Your task to perform on an android device: install app "Adobe Acrobat Reader" Image 0: 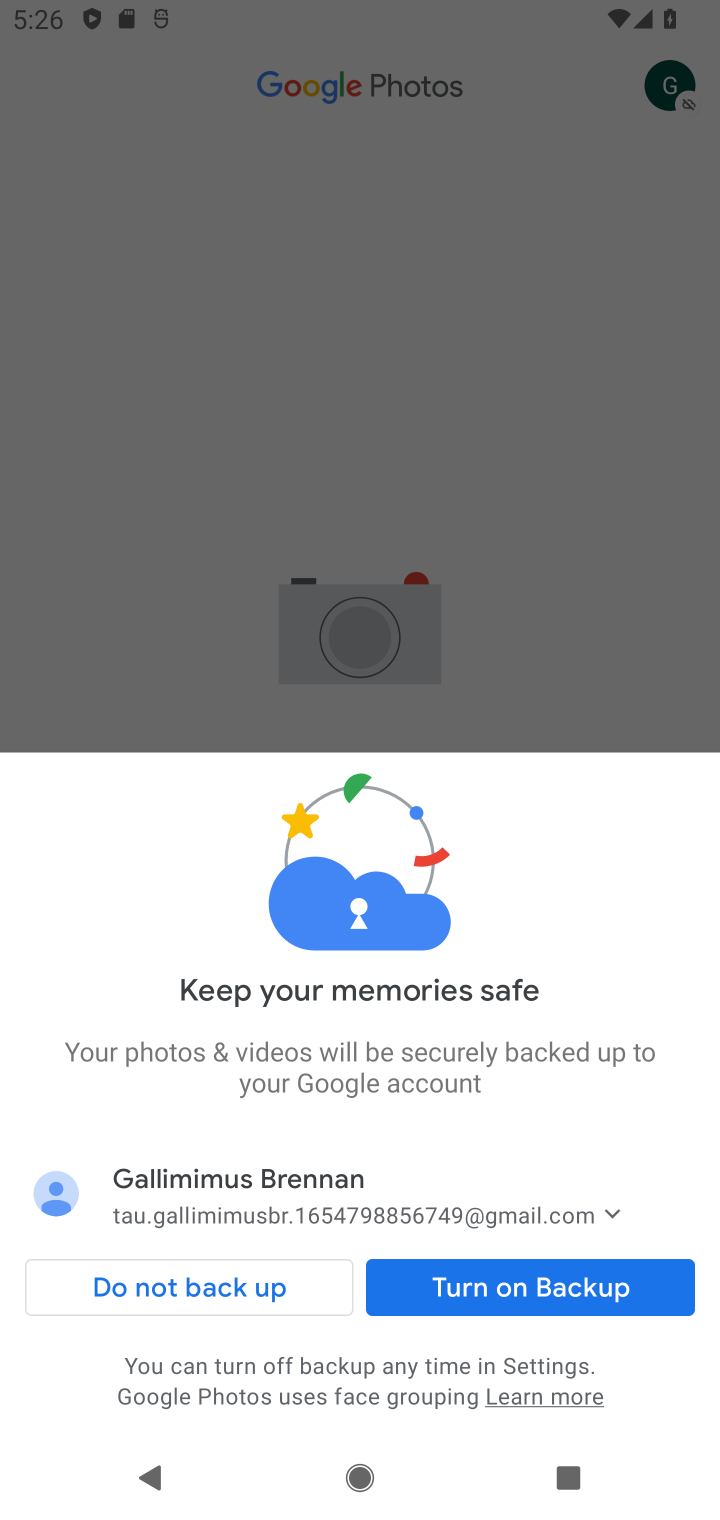
Step 0: press home button
Your task to perform on an android device: install app "Adobe Acrobat Reader" Image 1: 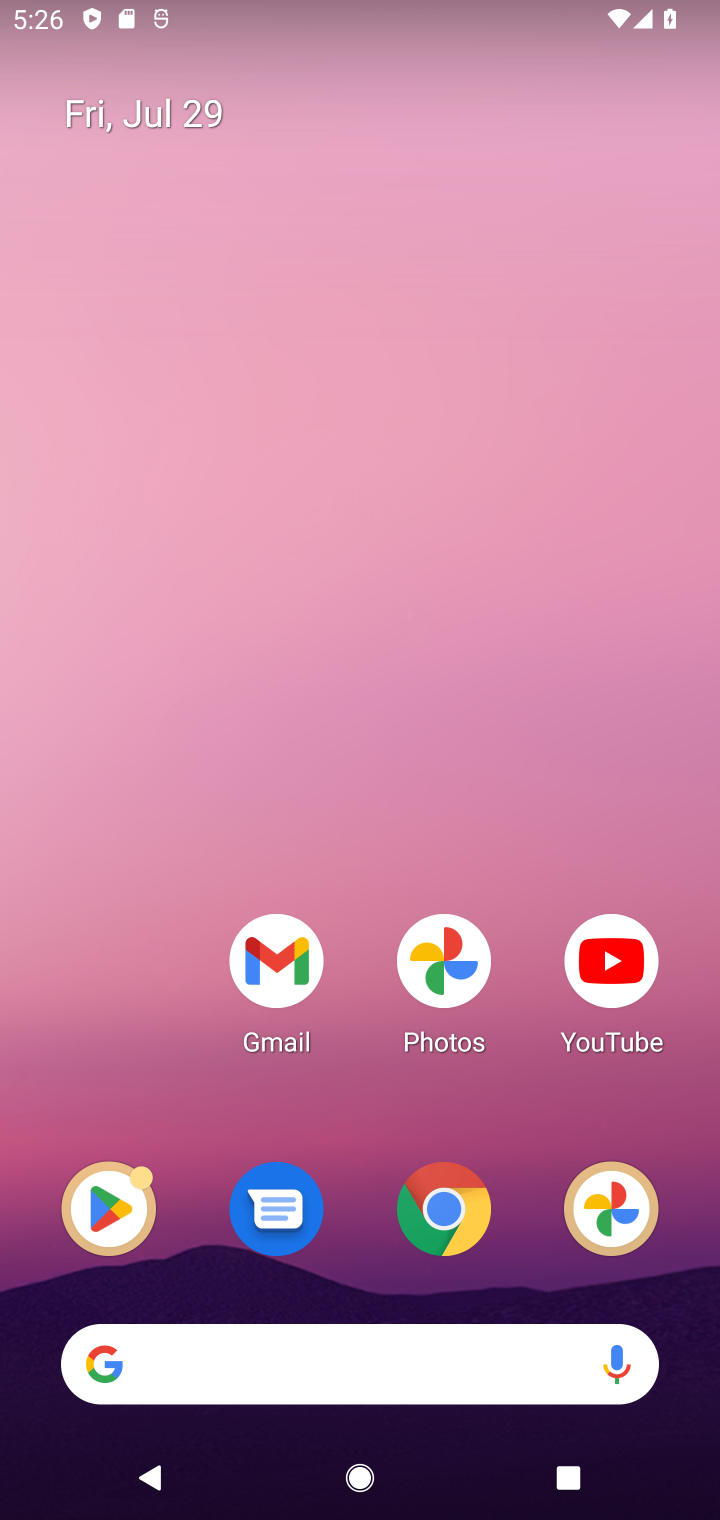
Step 1: click (134, 1215)
Your task to perform on an android device: install app "Adobe Acrobat Reader" Image 2: 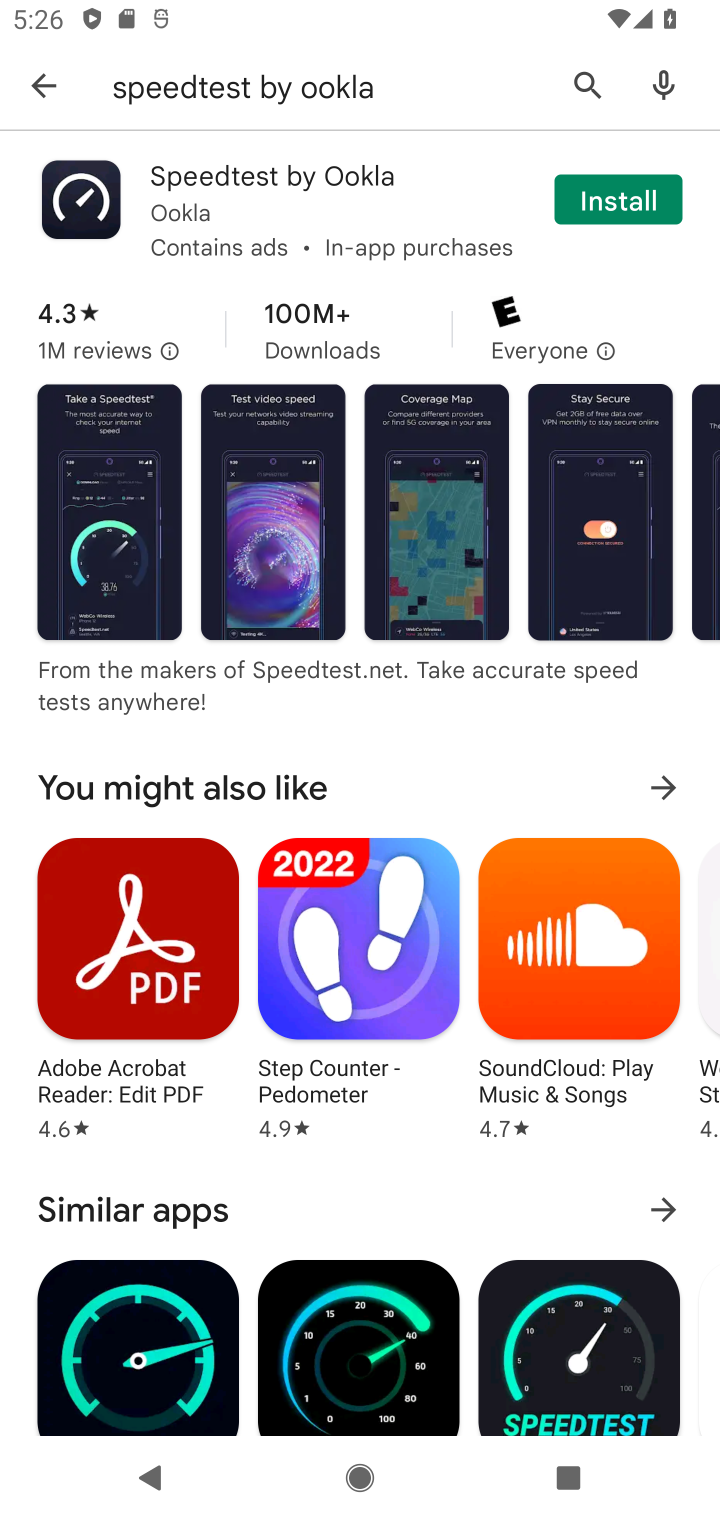
Step 2: click (589, 81)
Your task to perform on an android device: install app "Adobe Acrobat Reader" Image 3: 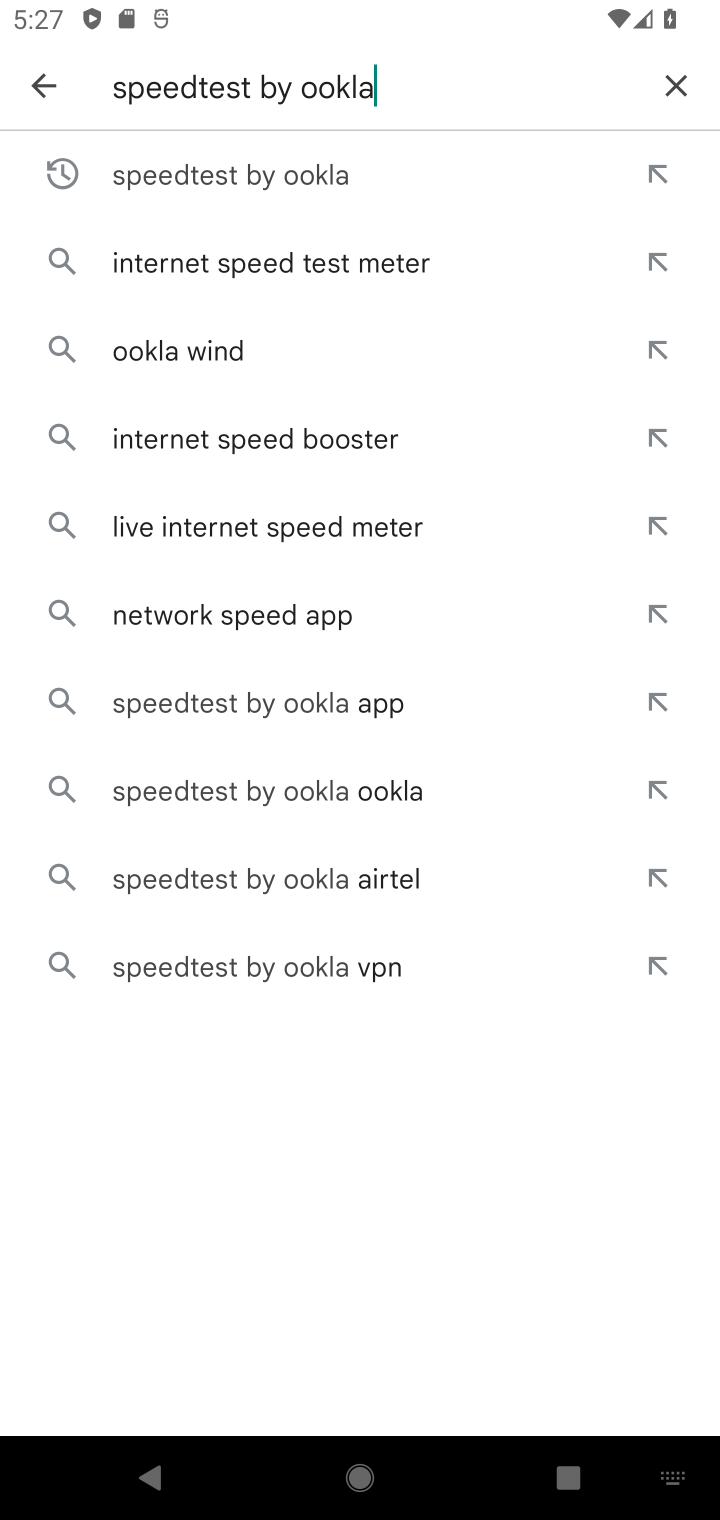
Step 3: click (675, 81)
Your task to perform on an android device: install app "Adobe Acrobat Reader" Image 4: 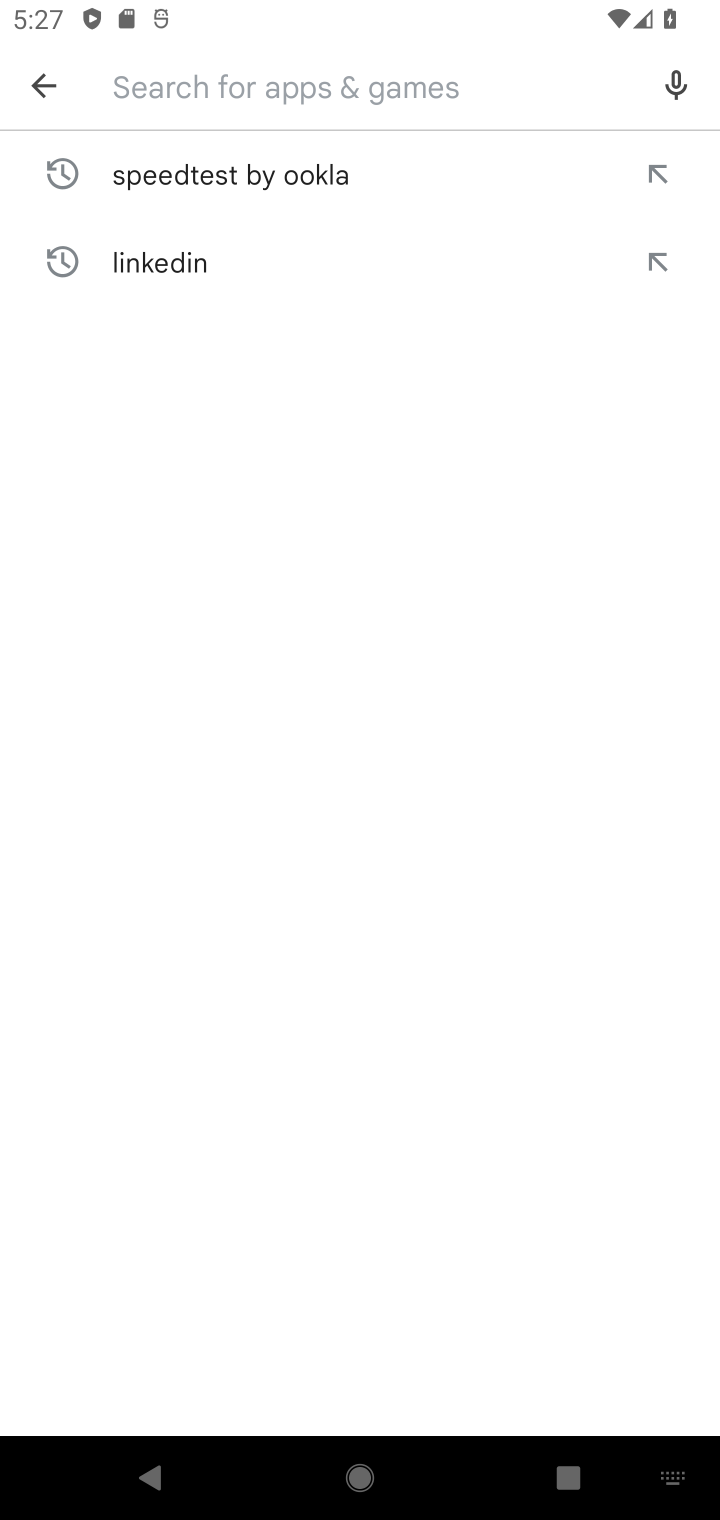
Step 4: click (415, 92)
Your task to perform on an android device: install app "Adobe Acrobat Reader" Image 5: 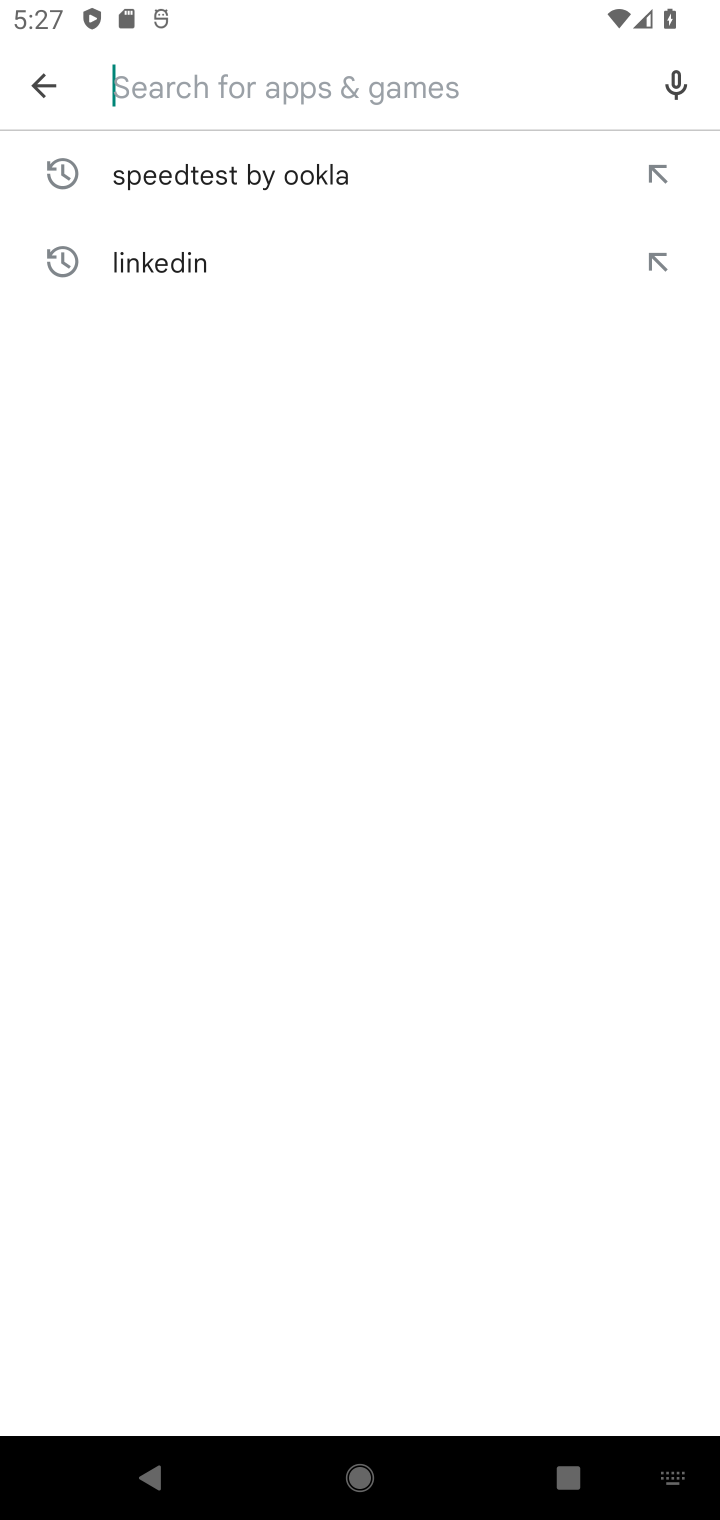
Step 5: type "Adobe Acrobat Reader"
Your task to perform on an android device: install app "Adobe Acrobat Reader" Image 6: 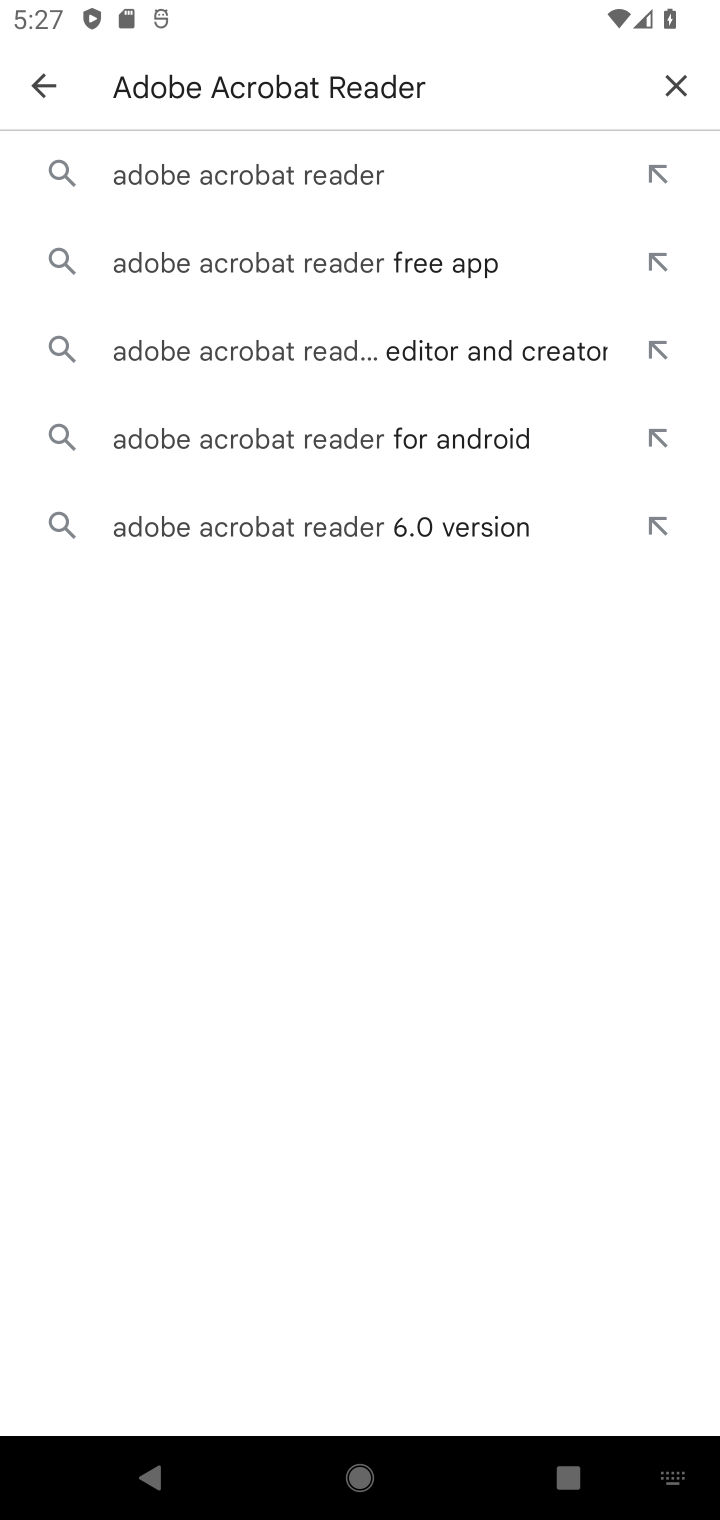
Step 6: click (191, 188)
Your task to perform on an android device: install app "Adobe Acrobat Reader" Image 7: 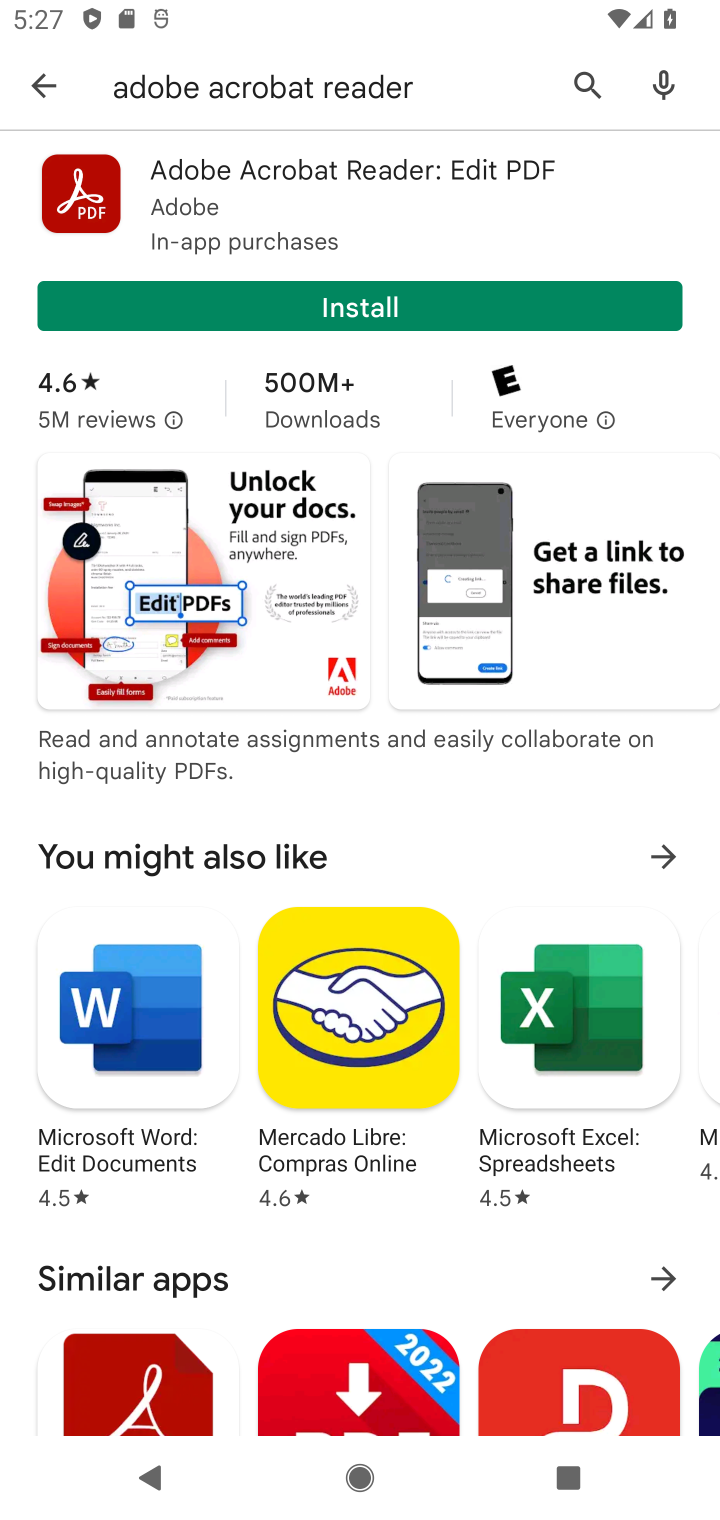
Step 7: click (274, 300)
Your task to perform on an android device: install app "Adobe Acrobat Reader" Image 8: 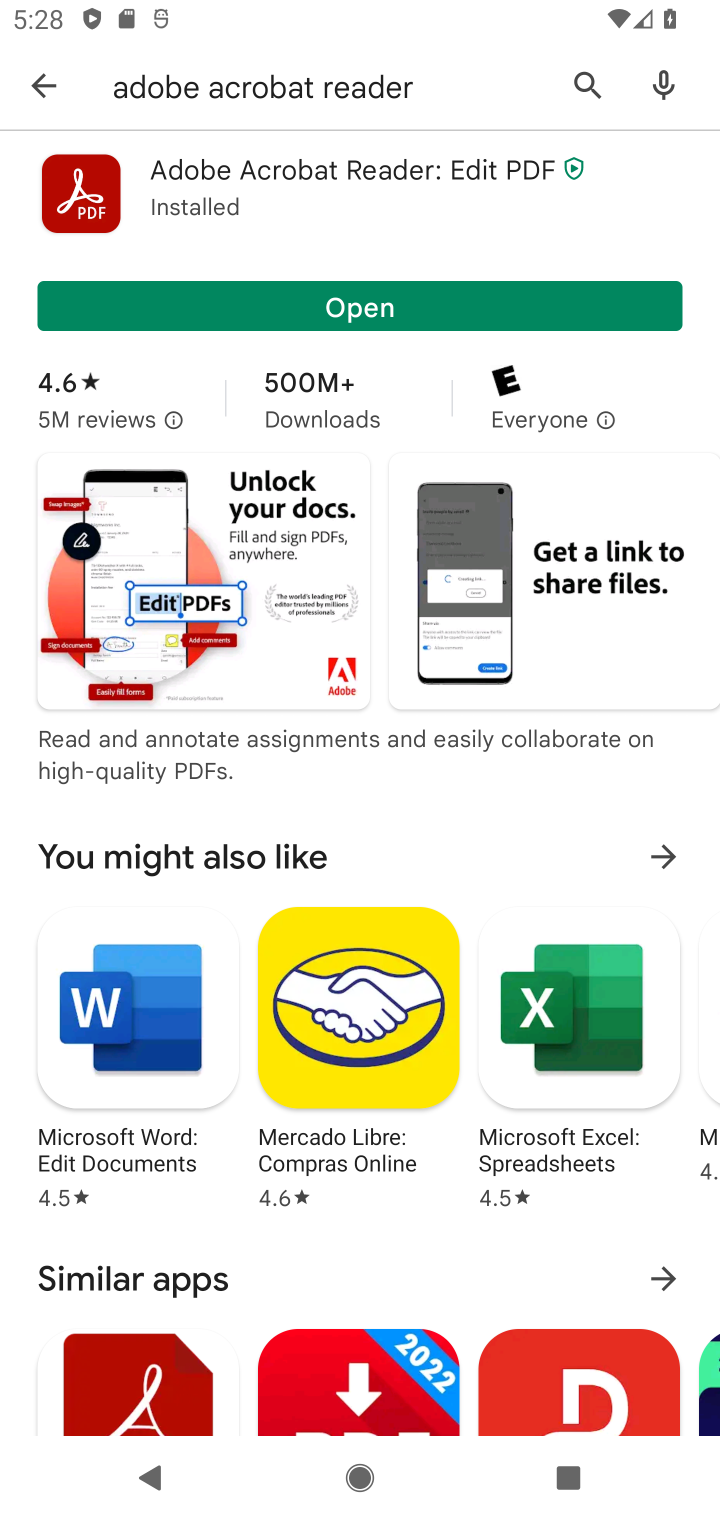
Step 8: task complete